Your task to perform on an android device: Open wifi settings Image 0: 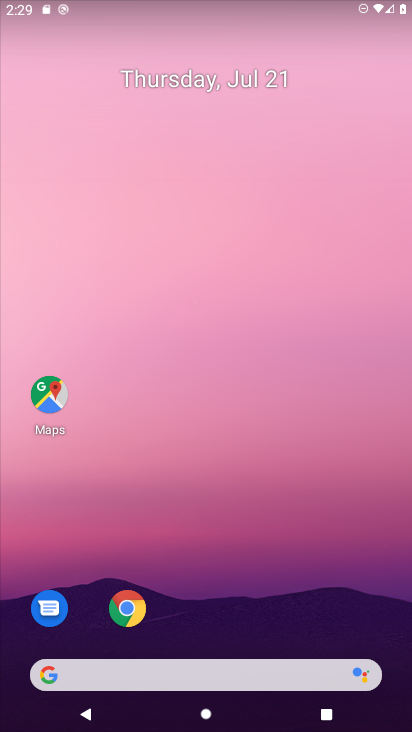
Step 0: drag from (238, 595) to (246, 30)
Your task to perform on an android device: Open wifi settings Image 1: 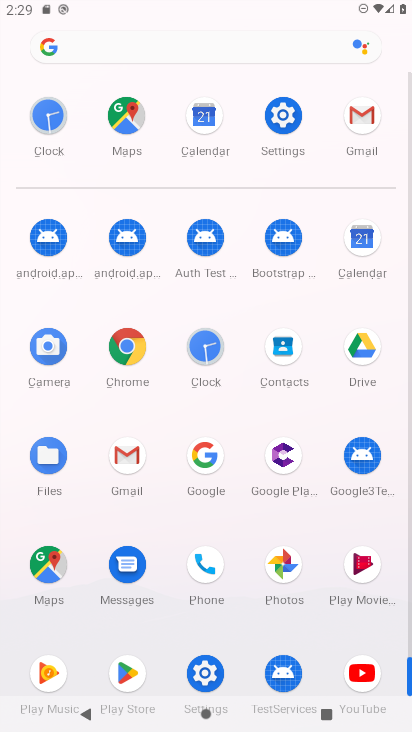
Step 1: click (277, 127)
Your task to perform on an android device: Open wifi settings Image 2: 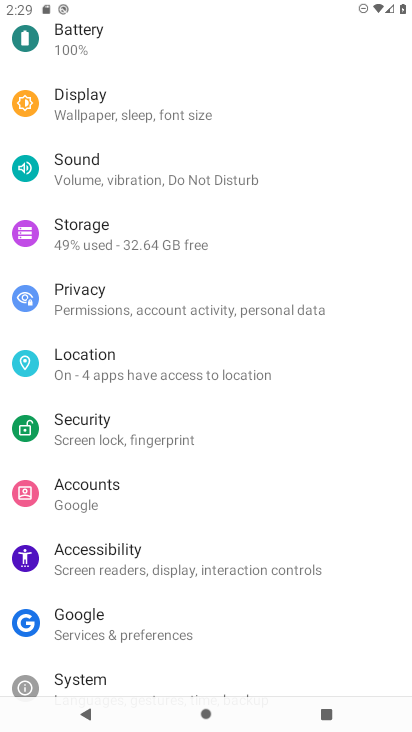
Step 2: drag from (153, 151) to (146, 507)
Your task to perform on an android device: Open wifi settings Image 3: 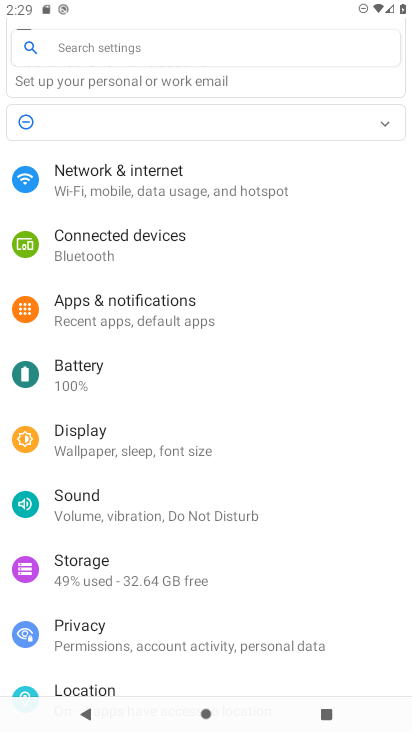
Step 3: click (81, 185)
Your task to perform on an android device: Open wifi settings Image 4: 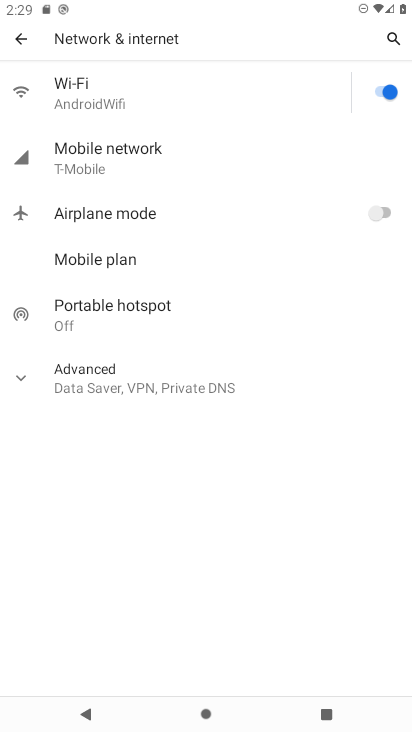
Step 4: click (116, 89)
Your task to perform on an android device: Open wifi settings Image 5: 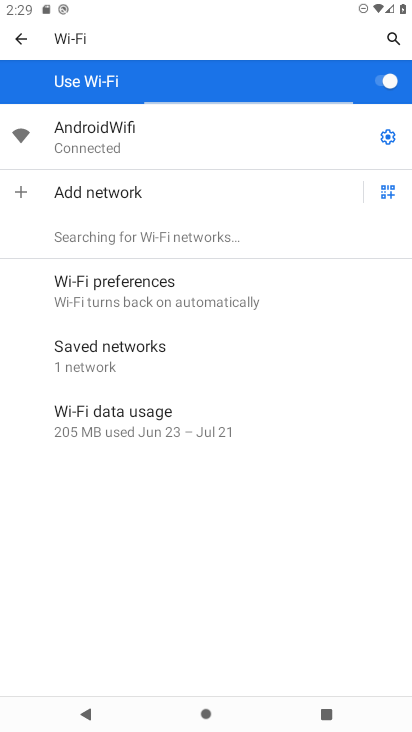
Step 5: task complete